Your task to perform on an android device: Go to internet settings Image 0: 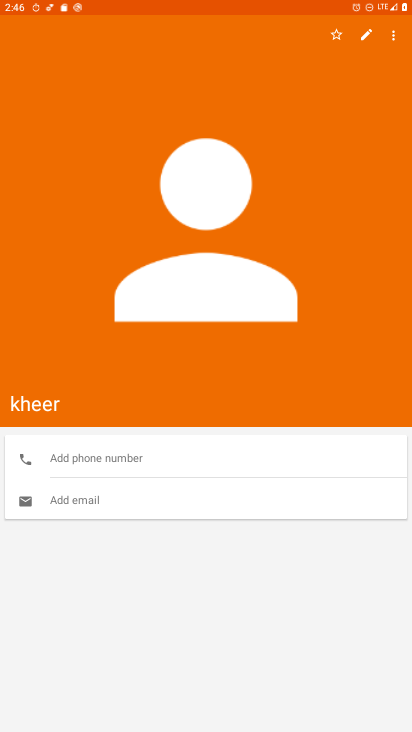
Step 0: press home button
Your task to perform on an android device: Go to internet settings Image 1: 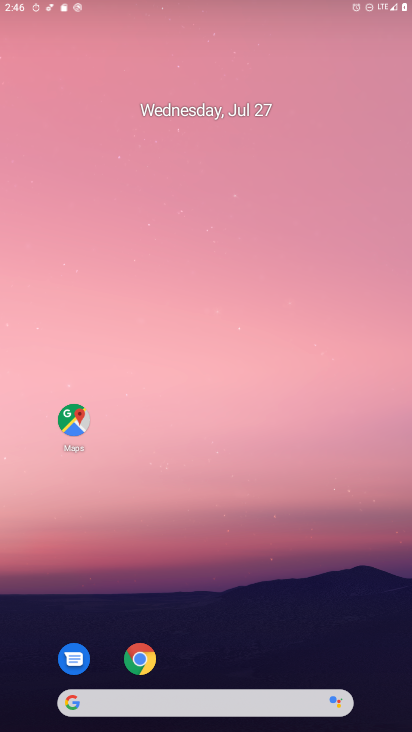
Step 1: drag from (261, 587) to (188, 43)
Your task to perform on an android device: Go to internet settings Image 2: 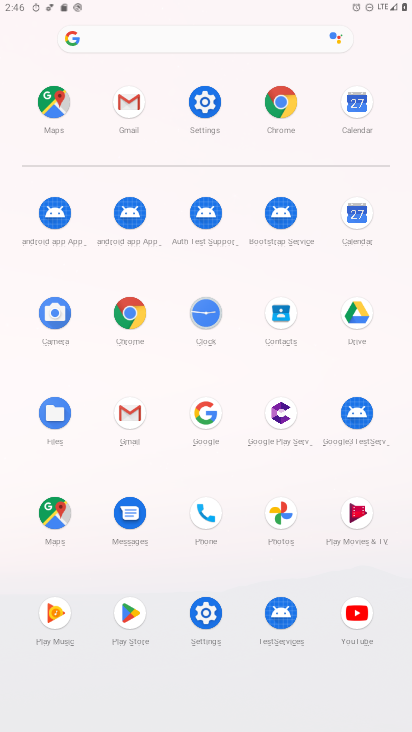
Step 2: click (219, 98)
Your task to perform on an android device: Go to internet settings Image 3: 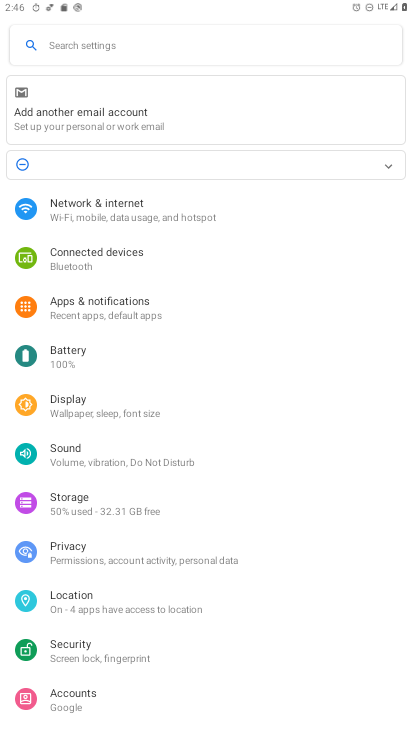
Step 3: click (115, 218)
Your task to perform on an android device: Go to internet settings Image 4: 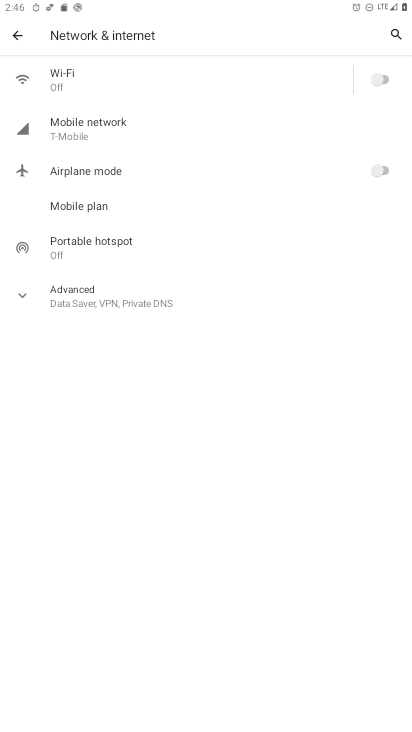
Step 4: click (99, 294)
Your task to perform on an android device: Go to internet settings Image 5: 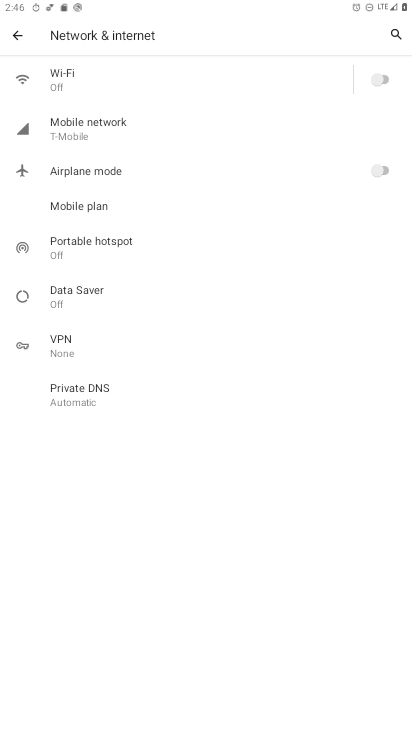
Step 5: task complete